Your task to perform on an android device: Search for razer thresher on costco, select the first entry, add it to the cart, then select checkout. Image 0: 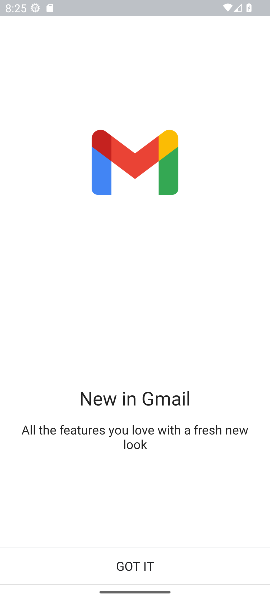
Step 0: press home button
Your task to perform on an android device: Search for razer thresher on costco, select the first entry, add it to the cart, then select checkout. Image 1: 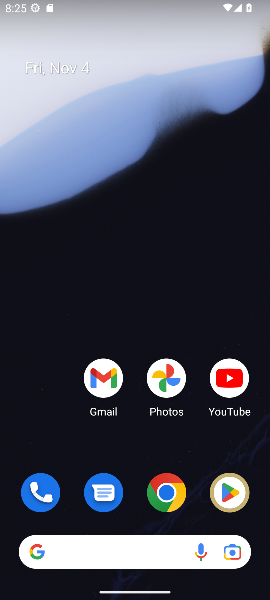
Step 1: drag from (121, 445) to (111, 0)
Your task to perform on an android device: Search for razer thresher on costco, select the first entry, add it to the cart, then select checkout. Image 2: 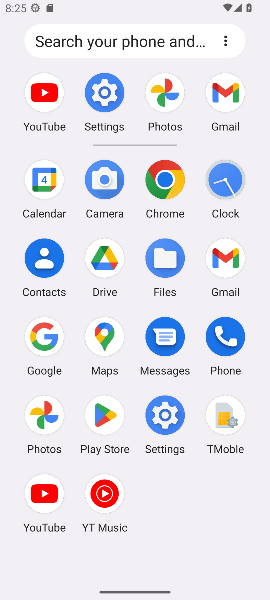
Step 2: click (168, 183)
Your task to perform on an android device: Search for razer thresher on costco, select the first entry, add it to the cart, then select checkout. Image 3: 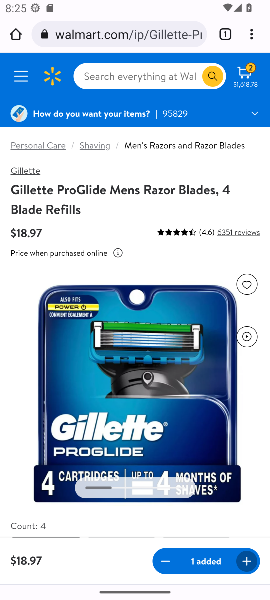
Step 3: click (158, 30)
Your task to perform on an android device: Search for razer thresher on costco, select the first entry, add it to the cart, then select checkout. Image 4: 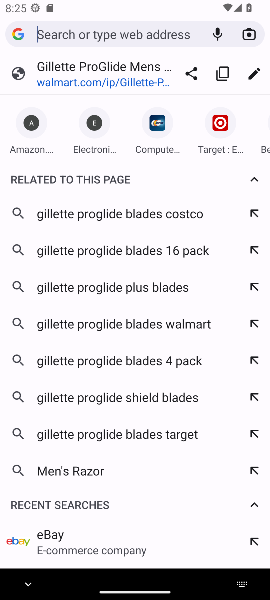
Step 4: type "costco.com"
Your task to perform on an android device: Search for razer thresher on costco, select the first entry, add it to the cart, then select checkout. Image 5: 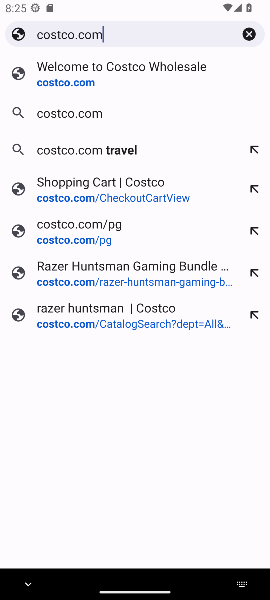
Step 5: press enter
Your task to perform on an android device: Search for razer thresher on costco, select the first entry, add it to the cart, then select checkout. Image 6: 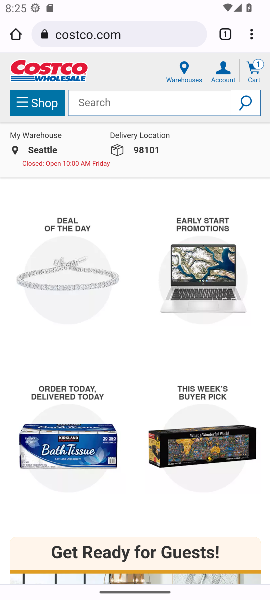
Step 6: click (157, 108)
Your task to perform on an android device: Search for razer thresher on costco, select the first entry, add it to the cart, then select checkout. Image 7: 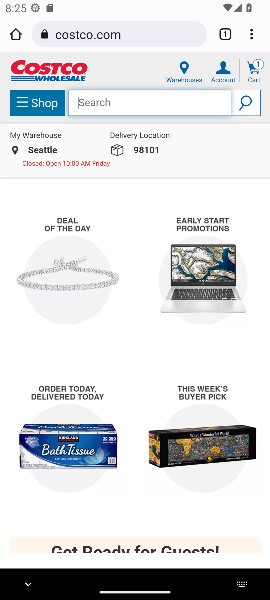
Step 7: type "razer thresher"
Your task to perform on an android device: Search for razer thresher on costco, select the first entry, add it to the cart, then select checkout. Image 8: 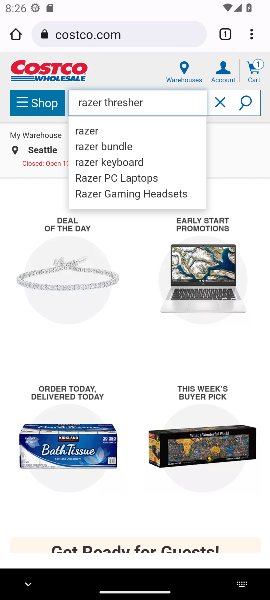
Step 8: press enter
Your task to perform on an android device: Search for razer thresher on costco, select the first entry, add it to the cart, then select checkout. Image 9: 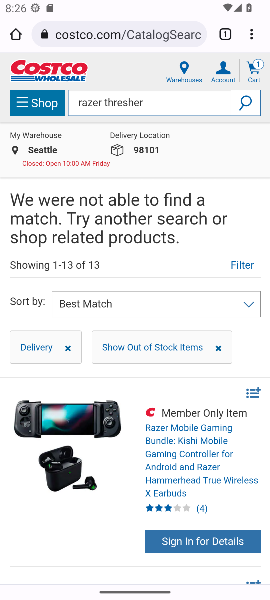
Step 9: task complete